Your task to perform on an android device: Clear the shopping cart on ebay. Image 0: 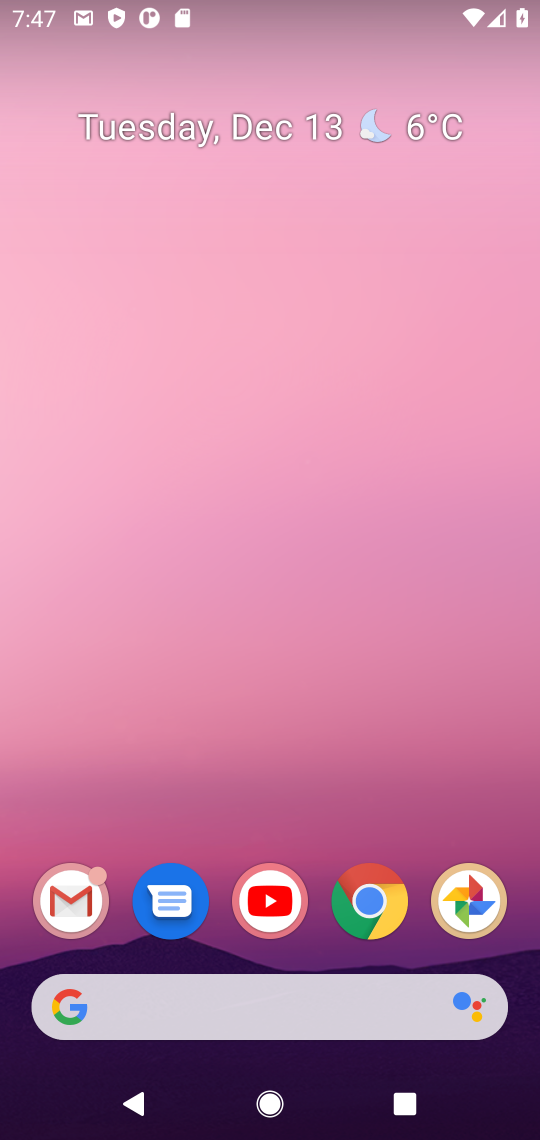
Step 0: click (337, 909)
Your task to perform on an android device: Clear the shopping cart on ebay. Image 1: 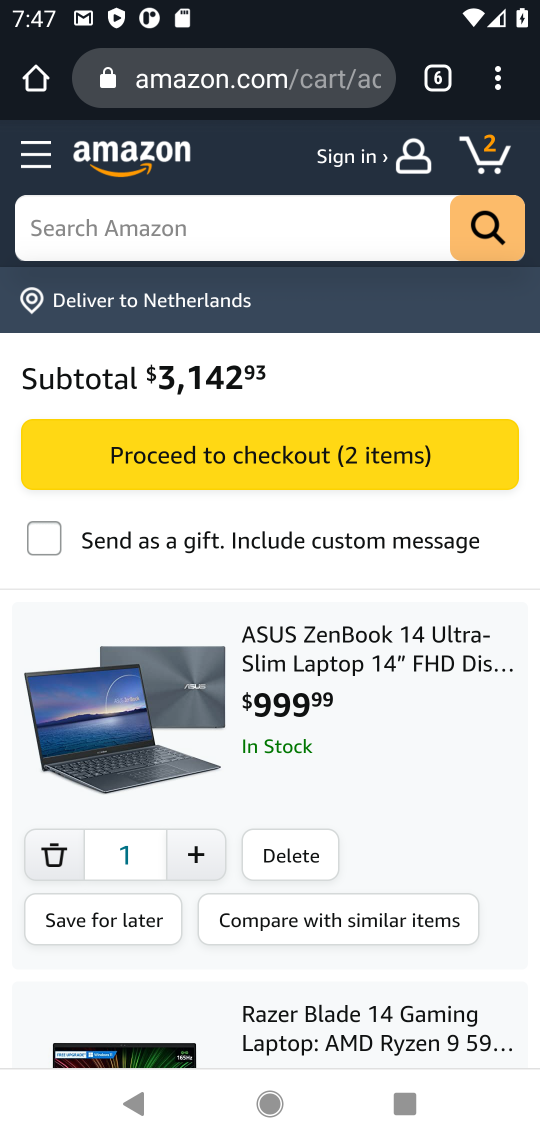
Step 1: click (445, 93)
Your task to perform on an android device: Clear the shopping cart on ebay. Image 2: 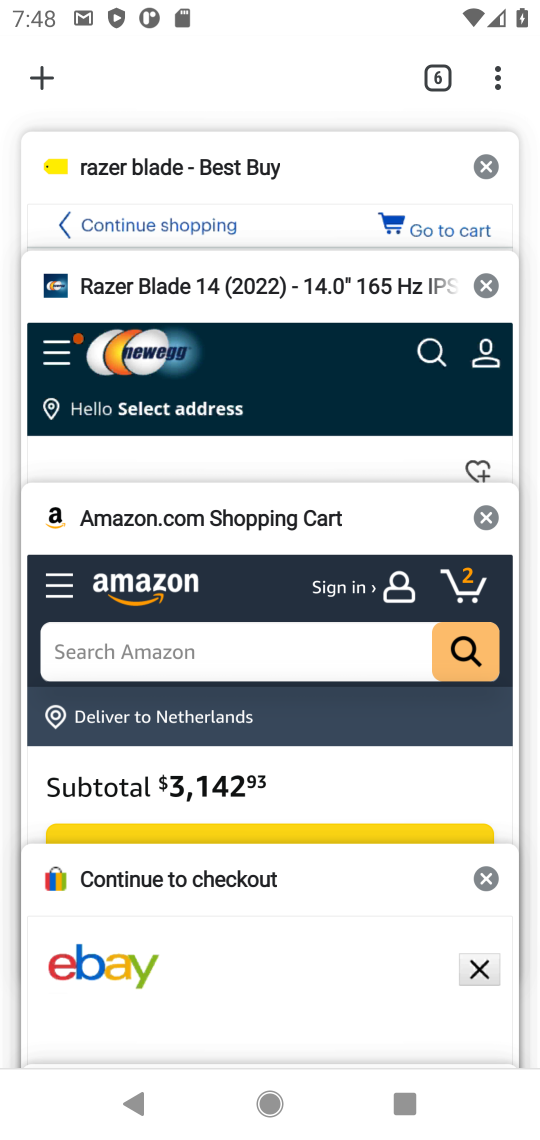
Step 2: click (158, 1006)
Your task to perform on an android device: Clear the shopping cart on ebay. Image 3: 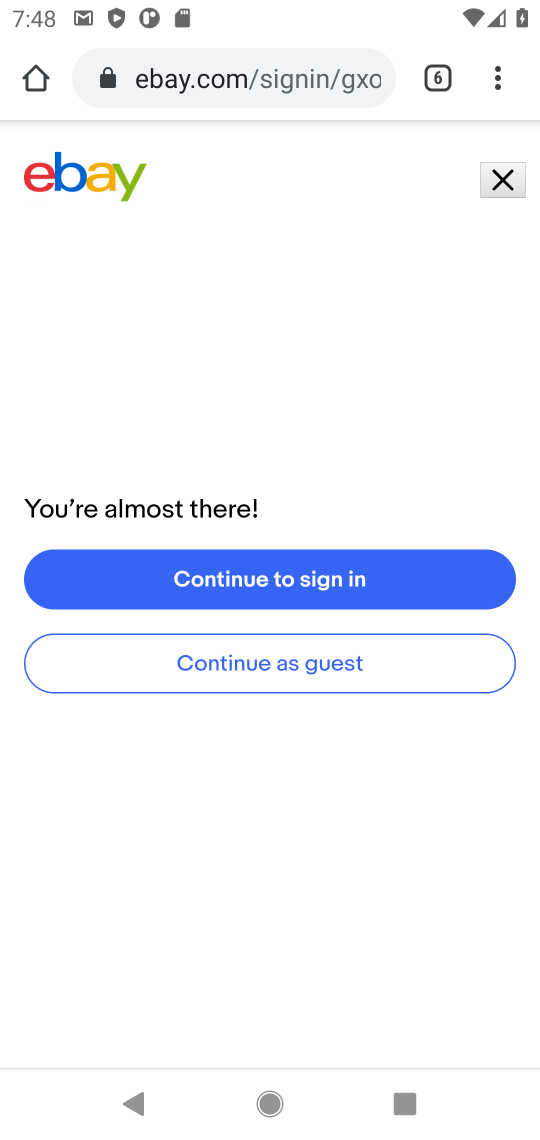
Step 3: click (504, 185)
Your task to perform on an android device: Clear the shopping cart on ebay. Image 4: 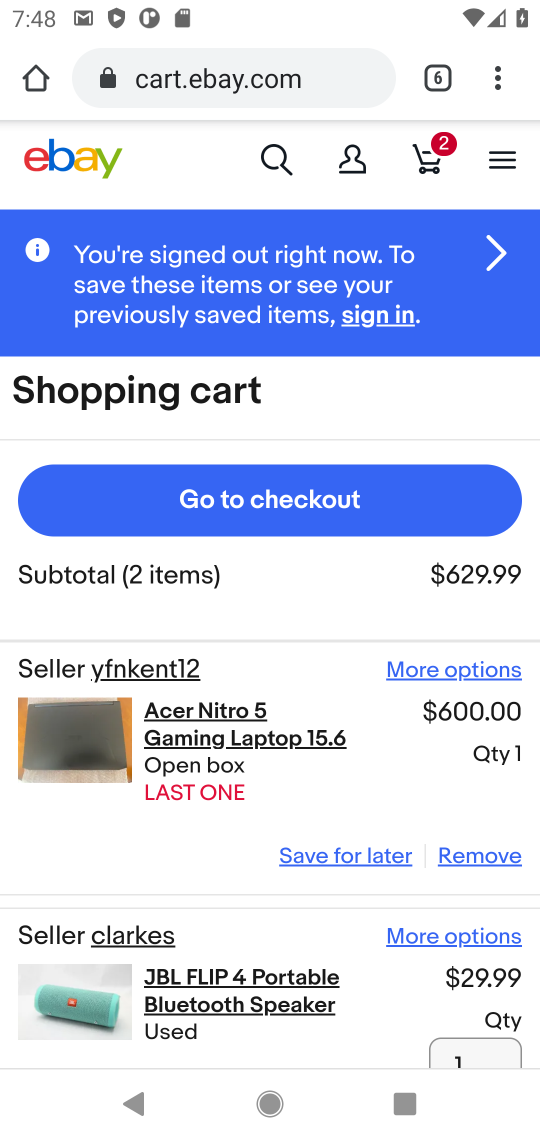
Step 4: click (470, 857)
Your task to perform on an android device: Clear the shopping cart on ebay. Image 5: 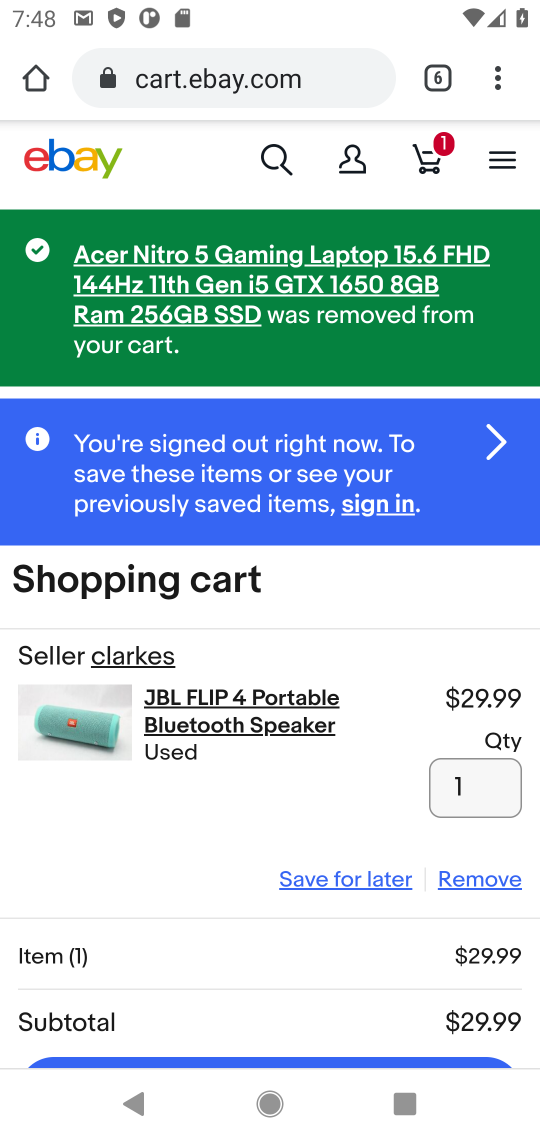
Step 5: click (469, 876)
Your task to perform on an android device: Clear the shopping cart on ebay. Image 6: 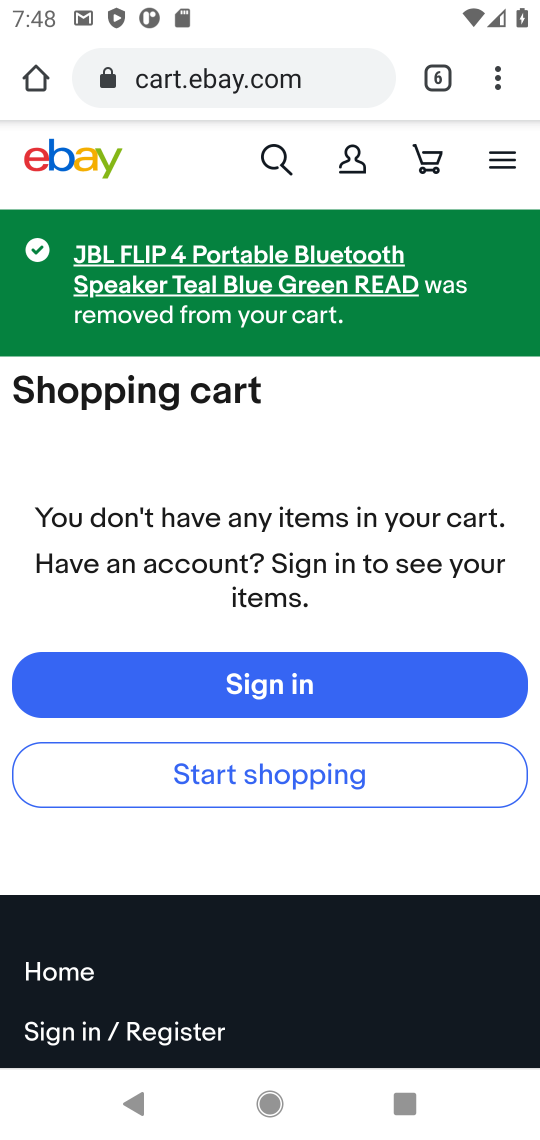
Step 6: task complete